Your task to perform on an android device: turn on bluetooth scan Image 0: 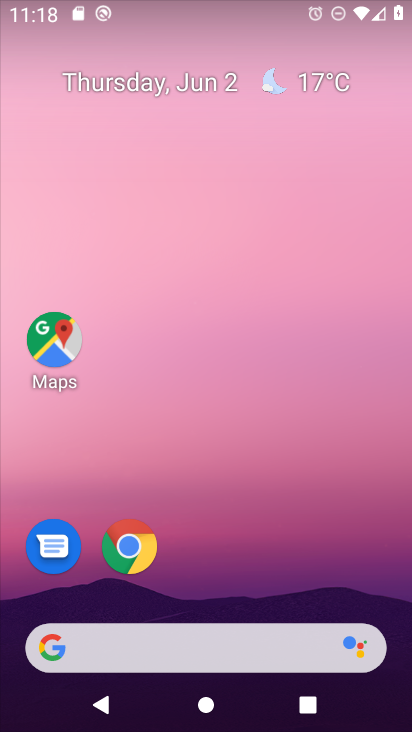
Step 0: drag from (254, 576) to (155, 52)
Your task to perform on an android device: turn on bluetooth scan Image 1: 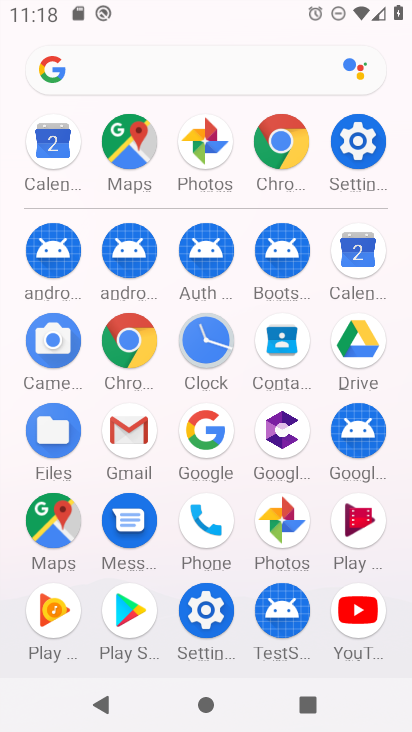
Step 1: click (206, 607)
Your task to perform on an android device: turn on bluetooth scan Image 2: 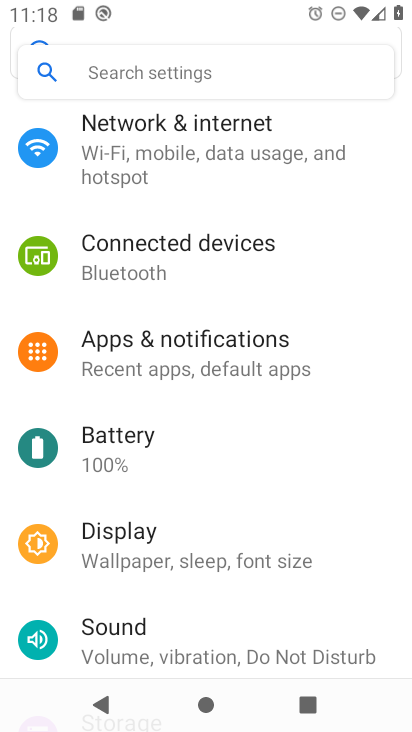
Step 2: drag from (224, 564) to (225, 184)
Your task to perform on an android device: turn on bluetooth scan Image 3: 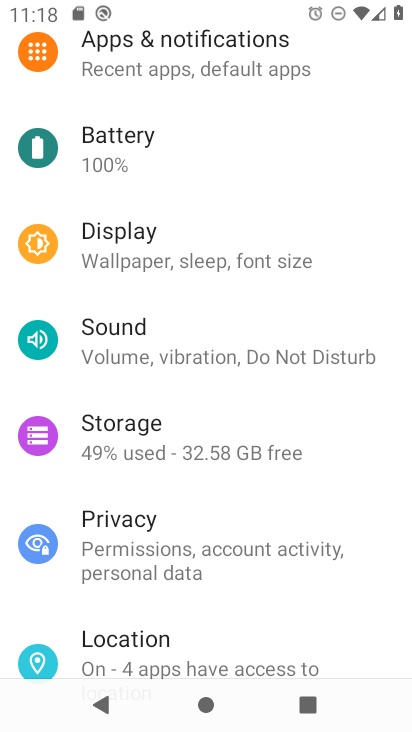
Step 3: drag from (241, 159) to (253, 537)
Your task to perform on an android device: turn on bluetooth scan Image 4: 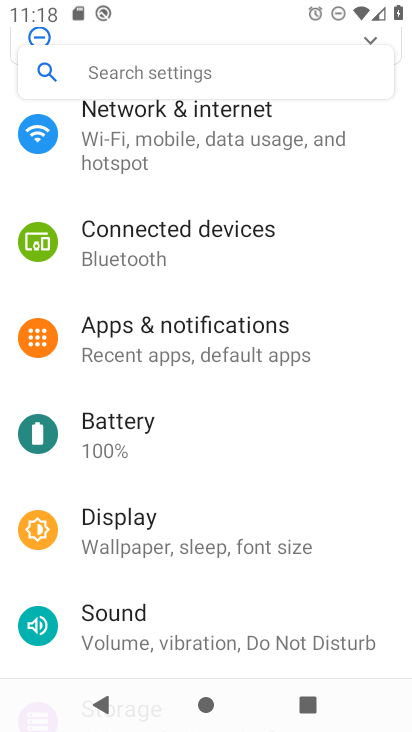
Step 4: drag from (200, 617) to (202, 191)
Your task to perform on an android device: turn on bluetooth scan Image 5: 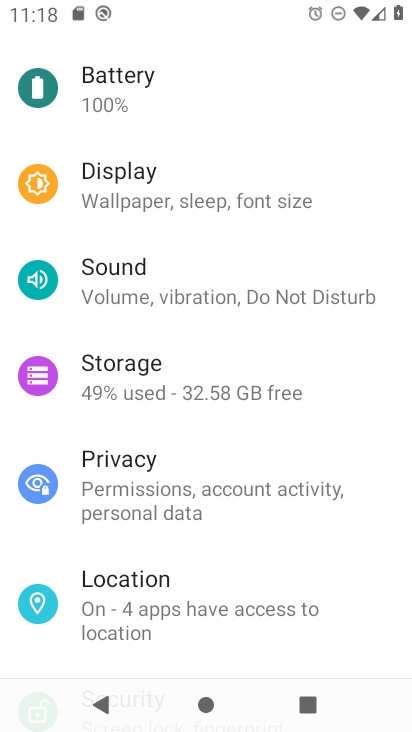
Step 5: click (138, 593)
Your task to perform on an android device: turn on bluetooth scan Image 6: 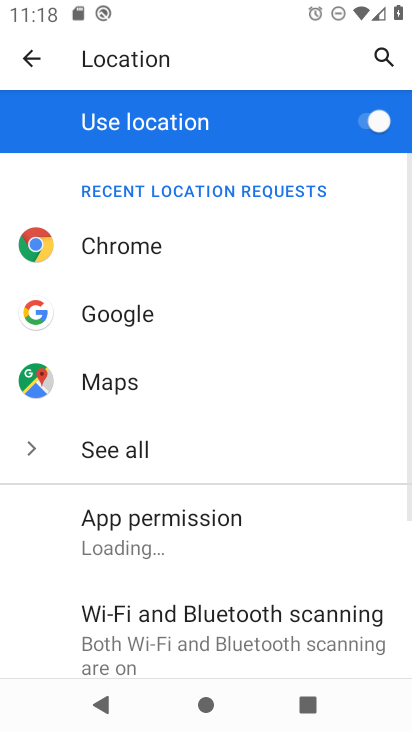
Step 6: drag from (239, 583) to (265, 161)
Your task to perform on an android device: turn on bluetooth scan Image 7: 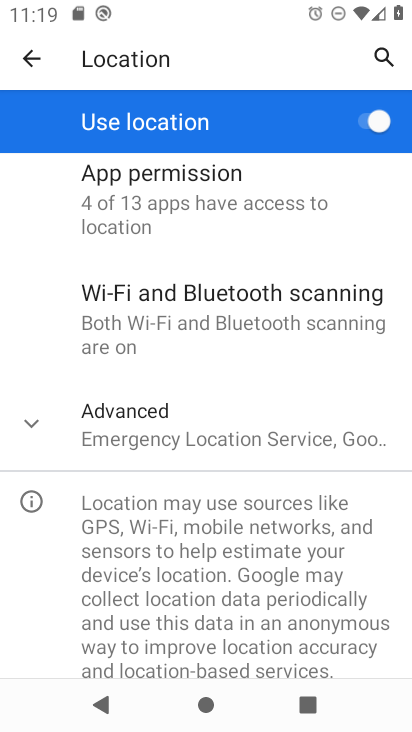
Step 7: click (31, 425)
Your task to perform on an android device: turn on bluetooth scan Image 8: 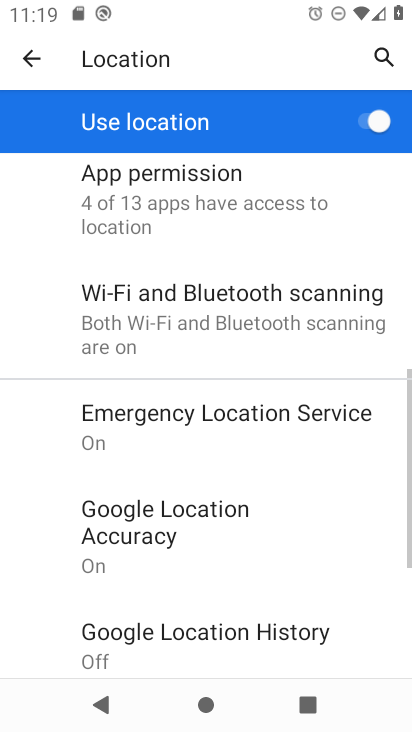
Step 8: click (200, 326)
Your task to perform on an android device: turn on bluetooth scan Image 9: 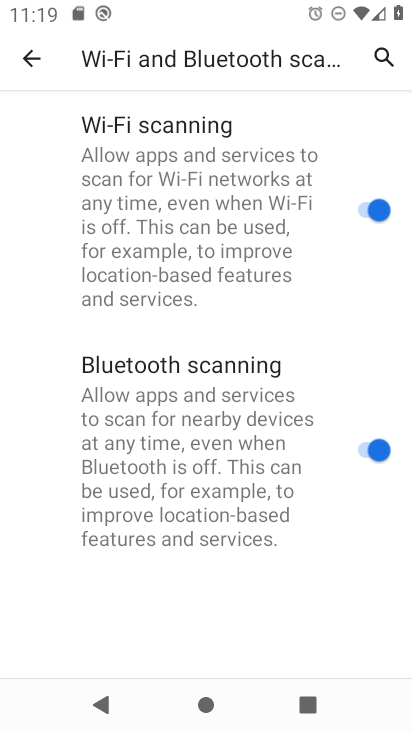
Step 9: task complete